Your task to perform on an android device: What is the news today? Image 0: 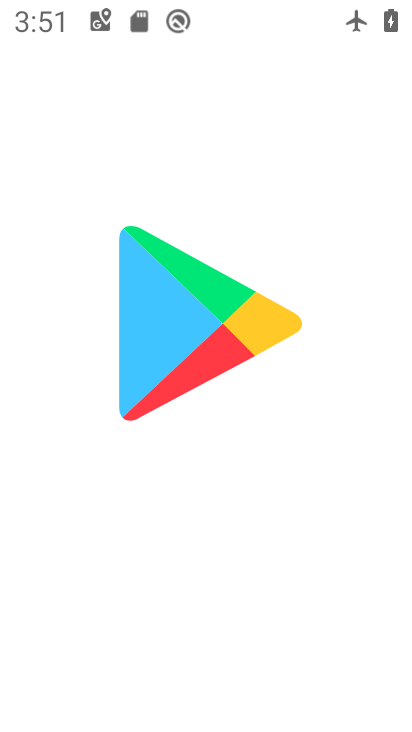
Step 0: press home button
Your task to perform on an android device: What is the news today? Image 1: 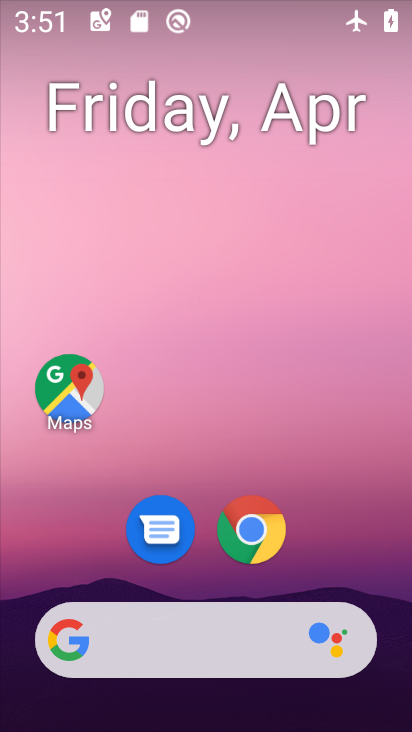
Step 1: drag from (310, 551) to (411, 152)
Your task to perform on an android device: What is the news today? Image 2: 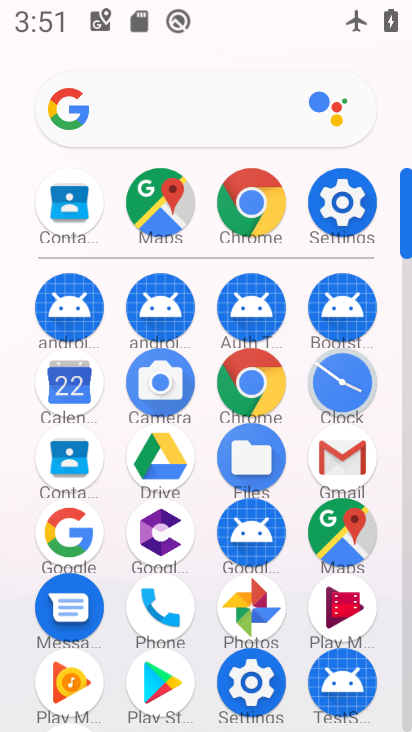
Step 2: click (153, 114)
Your task to perform on an android device: What is the news today? Image 3: 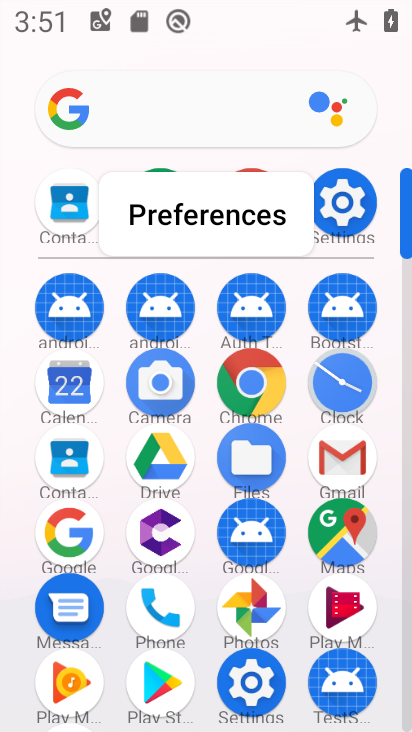
Step 3: click (135, 129)
Your task to perform on an android device: What is the news today? Image 4: 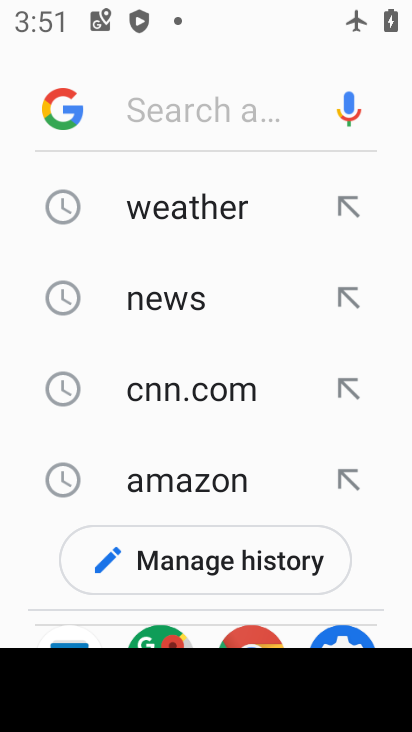
Step 4: type "what is the news today "
Your task to perform on an android device: What is the news today? Image 5: 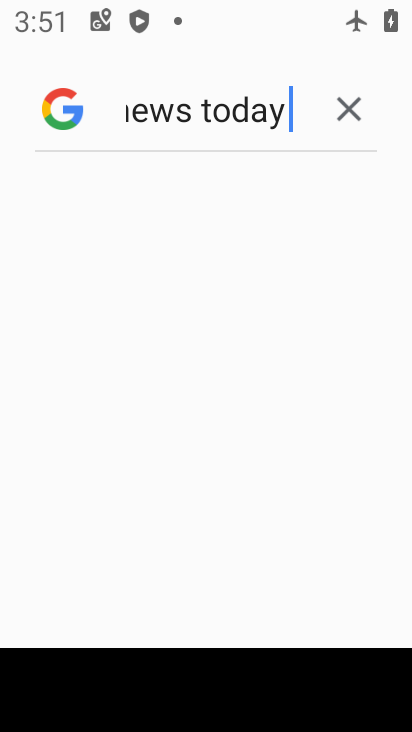
Step 5: task complete